Your task to perform on an android device: clear all cookies in the chrome app Image 0: 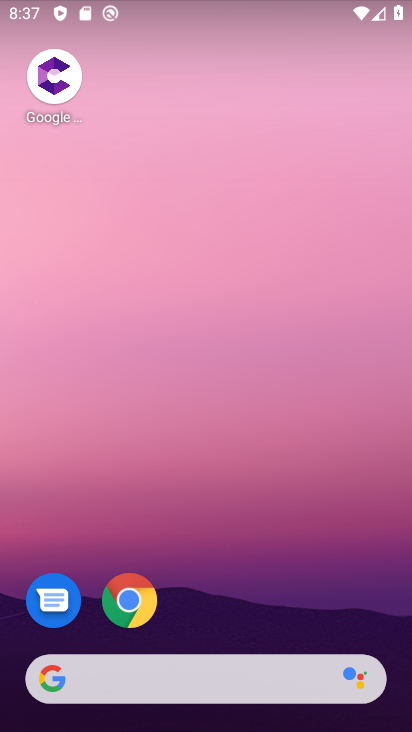
Step 0: click (135, 610)
Your task to perform on an android device: clear all cookies in the chrome app Image 1: 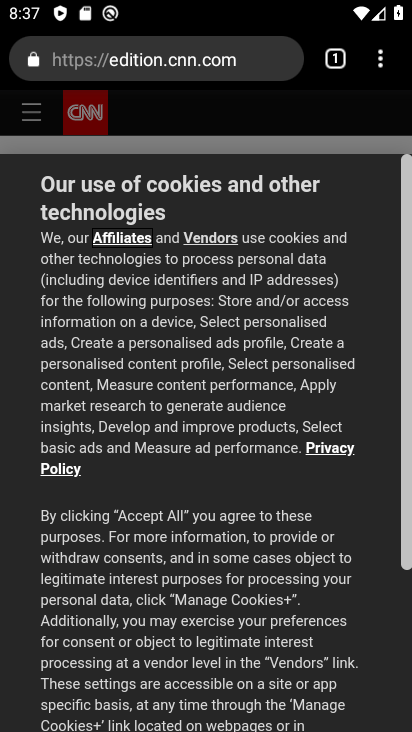
Step 1: click (385, 48)
Your task to perform on an android device: clear all cookies in the chrome app Image 2: 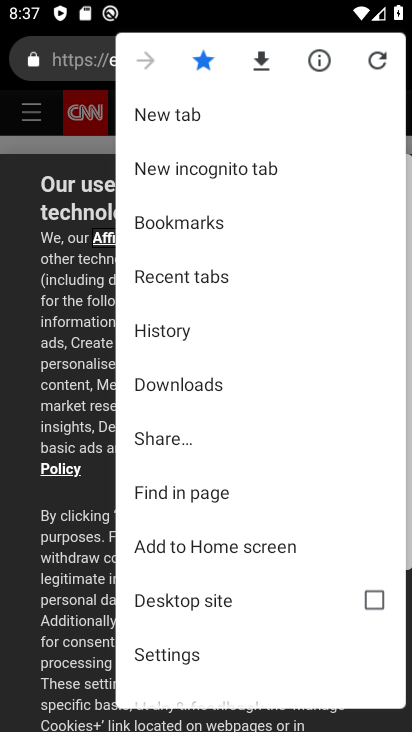
Step 2: click (221, 329)
Your task to perform on an android device: clear all cookies in the chrome app Image 3: 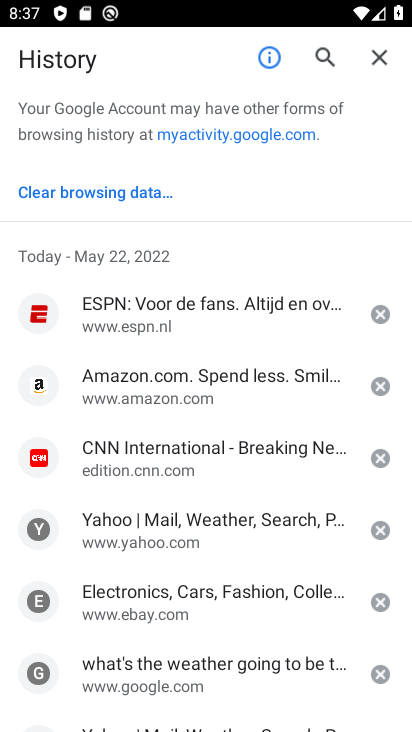
Step 3: click (100, 188)
Your task to perform on an android device: clear all cookies in the chrome app Image 4: 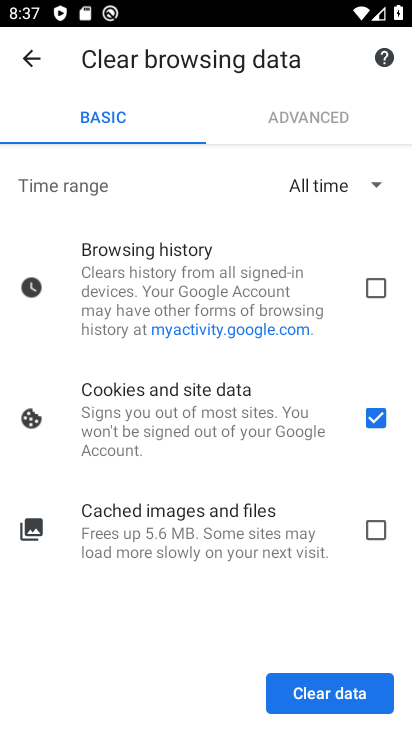
Step 4: click (346, 682)
Your task to perform on an android device: clear all cookies in the chrome app Image 5: 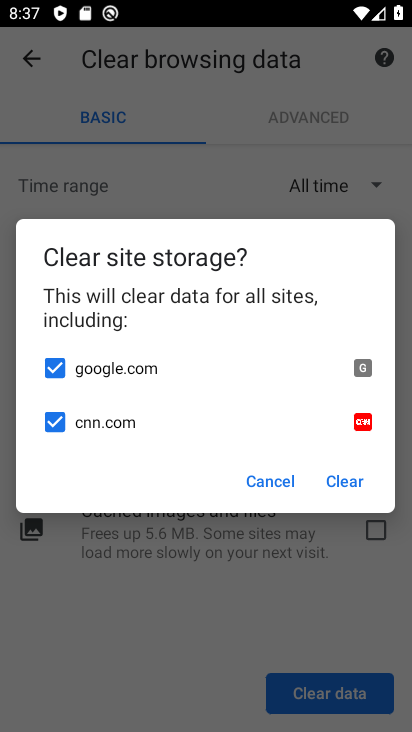
Step 5: click (340, 482)
Your task to perform on an android device: clear all cookies in the chrome app Image 6: 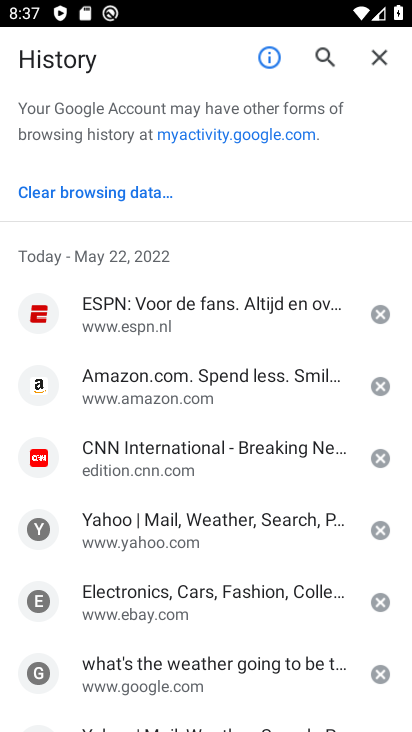
Step 6: task complete